Your task to perform on an android device: Search for "logitech g pro" on costco.com, select the first entry, add it to the cart, then select checkout. Image 0: 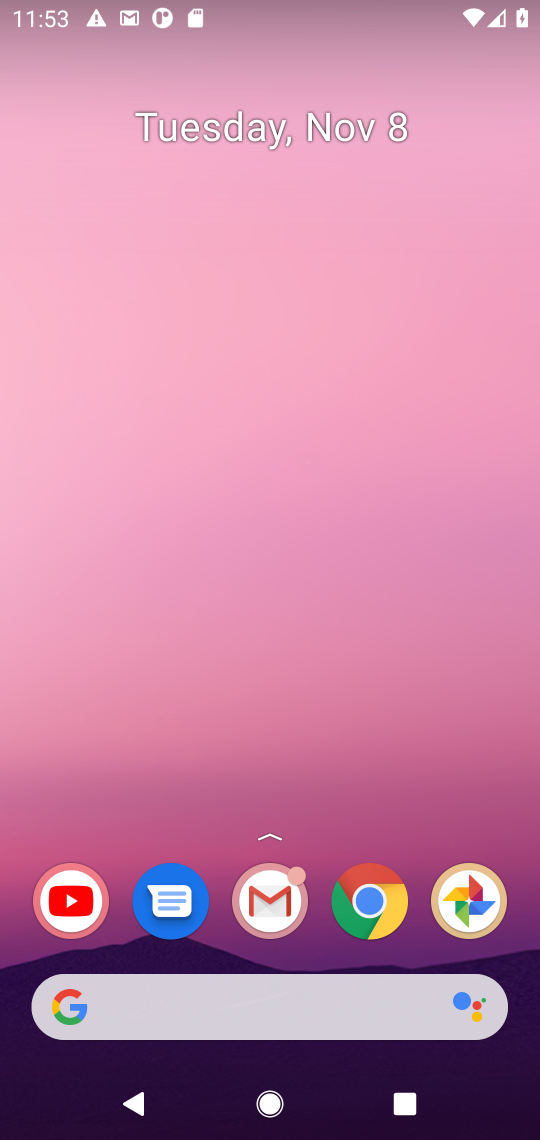
Step 0: click (358, 881)
Your task to perform on an android device: Search for "logitech g pro" on costco.com, select the first entry, add it to the cart, then select checkout. Image 1: 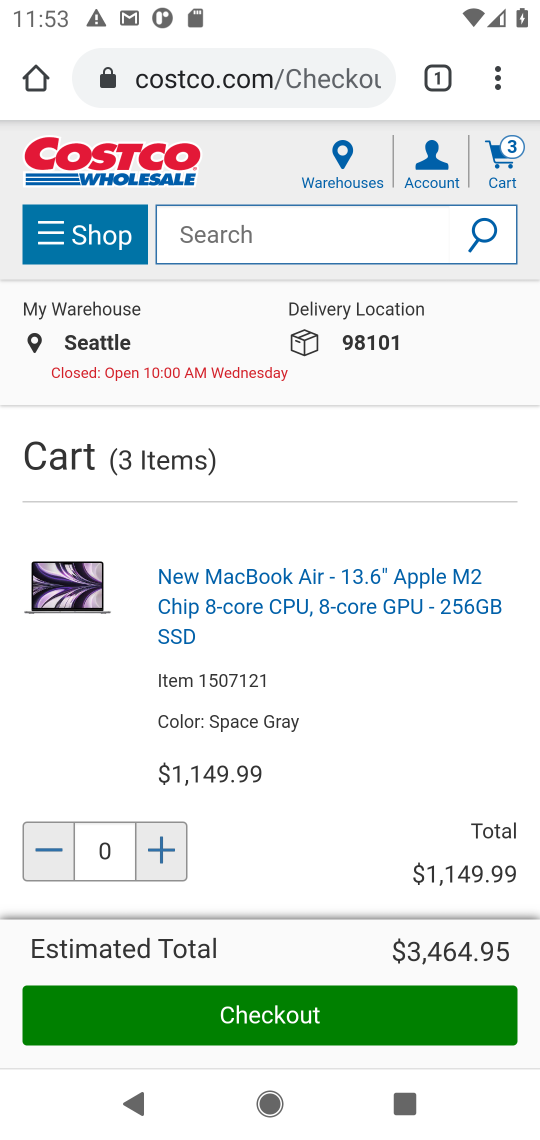
Step 1: click (202, 782)
Your task to perform on an android device: Search for "logitech g pro" on costco.com, select the first entry, add it to the cart, then select checkout. Image 2: 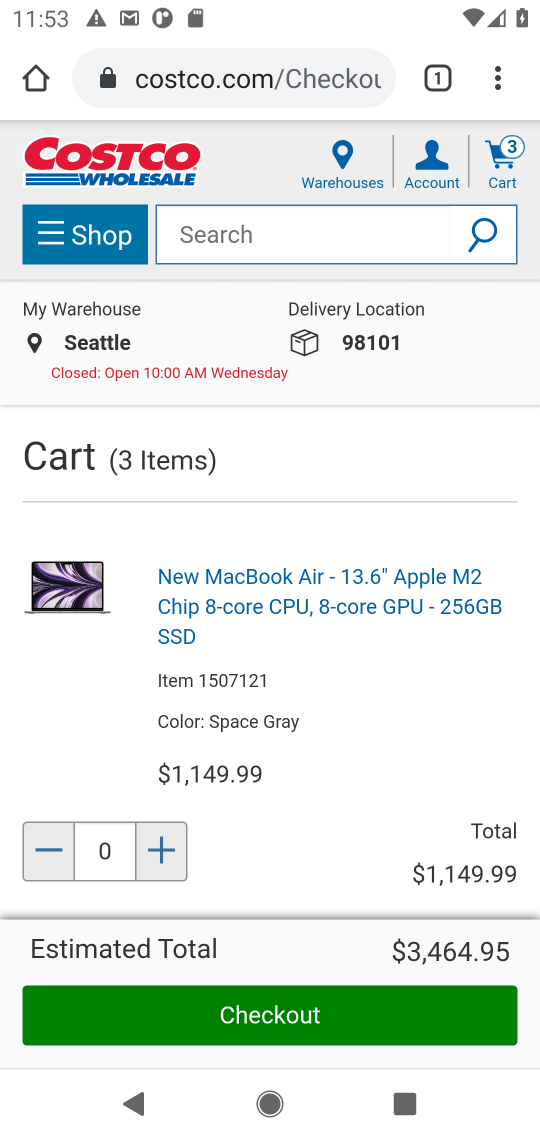
Step 2: click (343, 213)
Your task to perform on an android device: Search for "logitech g pro" on costco.com, select the first entry, add it to the cart, then select checkout. Image 3: 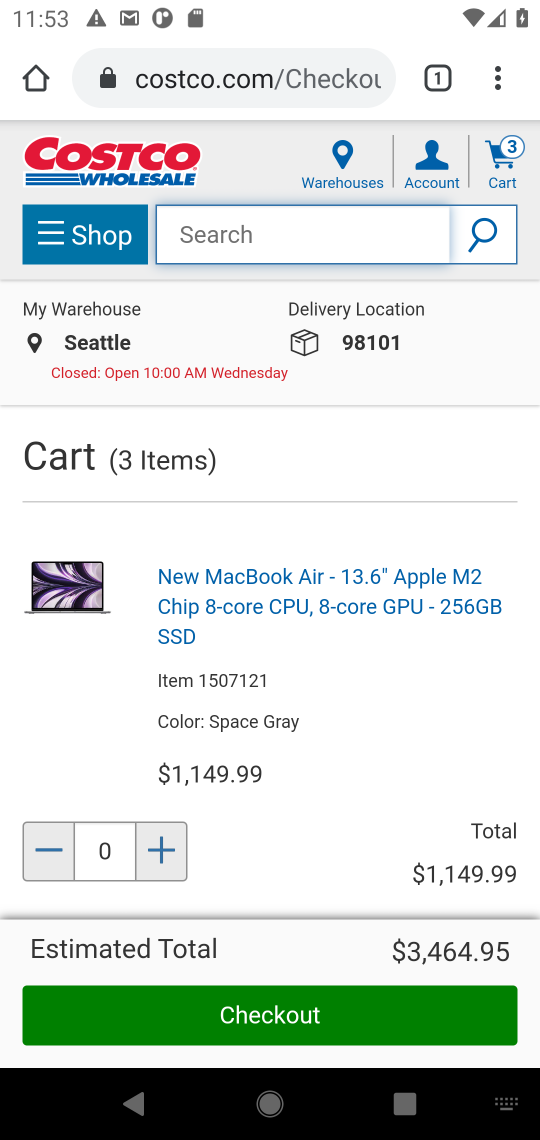
Step 3: type "logitech g pro"
Your task to perform on an android device: Search for "logitech g pro" on costco.com, select the first entry, add it to the cart, then select checkout. Image 4: 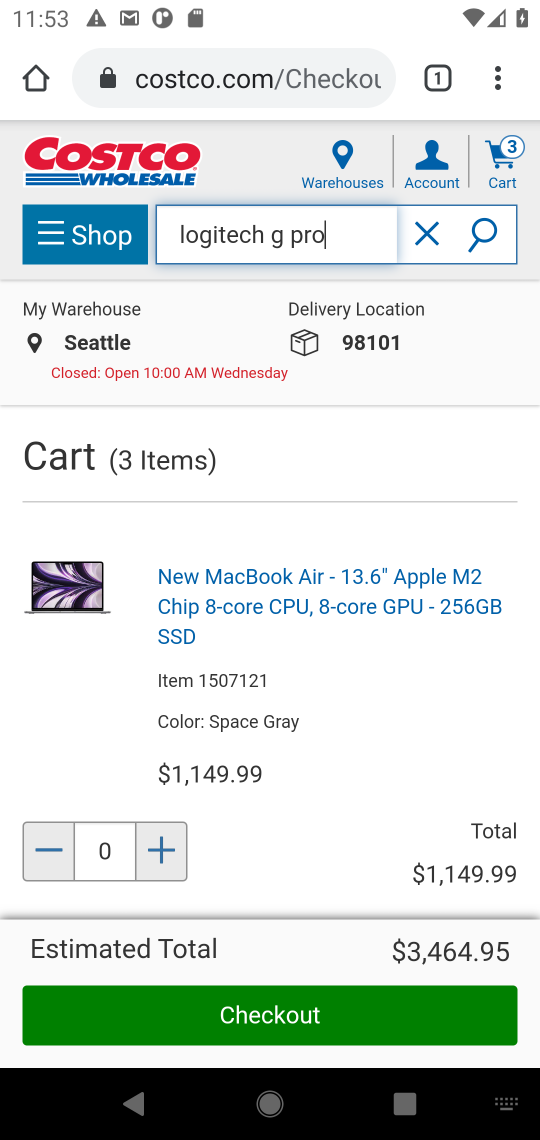
Step 4: press enter
Your task to perform on an android device: Search for "logitech g pro" on costco.com, select the first entry, add it to the cart, then select checkout. Image 5: 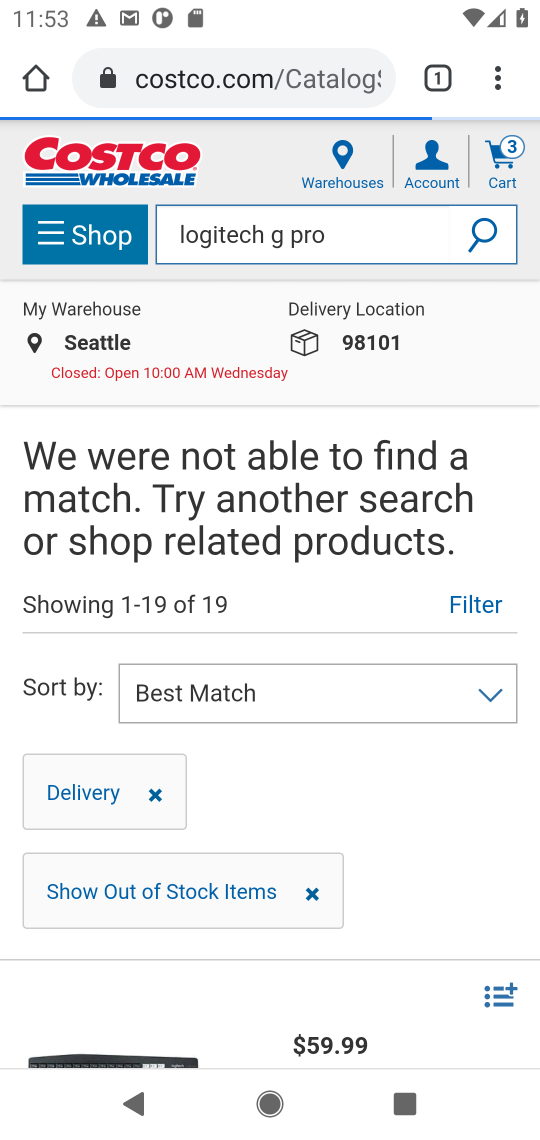
Step 5: task complete